Your task to perform on an android device: Show me productivity apps on the Play Store Image 0: 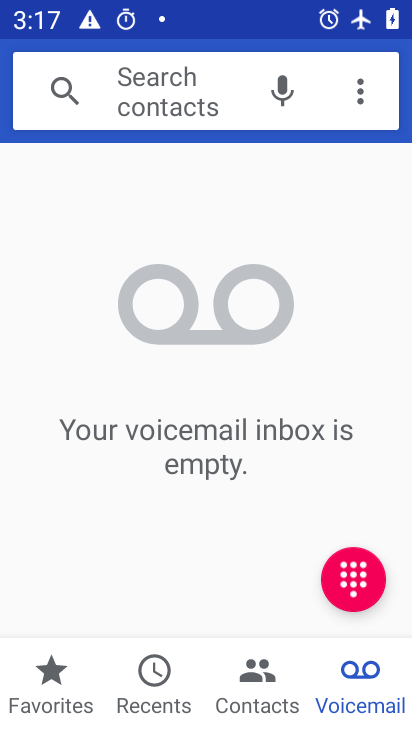
Step 0: press home button
Your task to perform on an android device: Show me productivity apps on the Play Store Image 1: 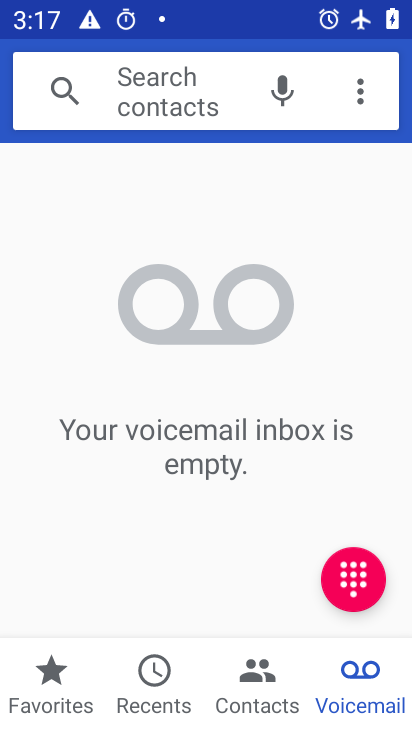
Step 1: press home button
Your task to perform on an android device: Show me productivity apps on the Play Store Image 2: 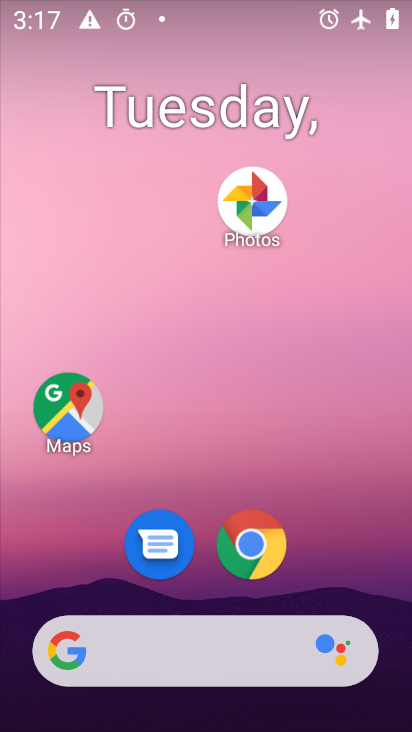
Step 2: drag from (311, 416) to (280, 97)
Your task to perform on an android device: Show me productivity apps on the Play Store Image 3: 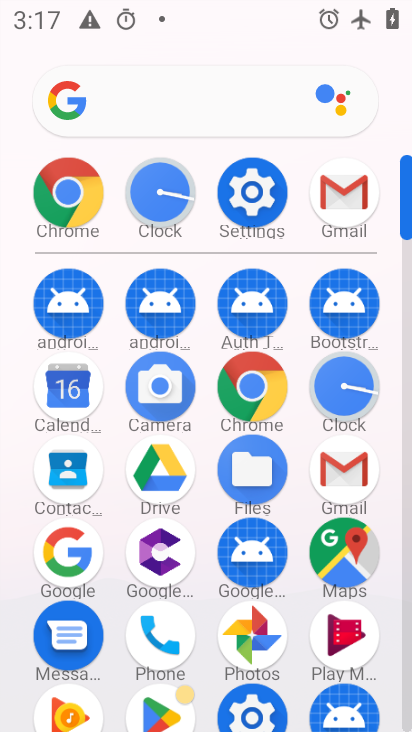
Step 3: drag from (196, 591) to (199, 144)
Your task to perform on an android device: Show me productivity apps on the Play Store Image 4: 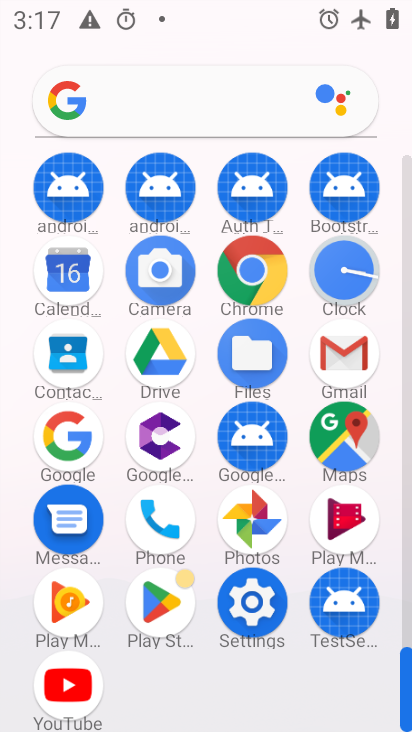
Step 4: click (162, 607)
Your task to perform on an android device: Show me productivity apps on the Play Store Image 5: 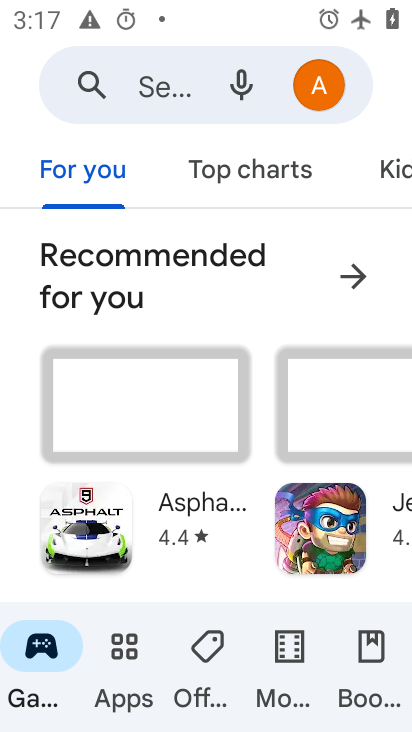
Step 5: click (96, 643)
Your task to perform on an android device: Show me productivity apps on the Play Store Image 6: 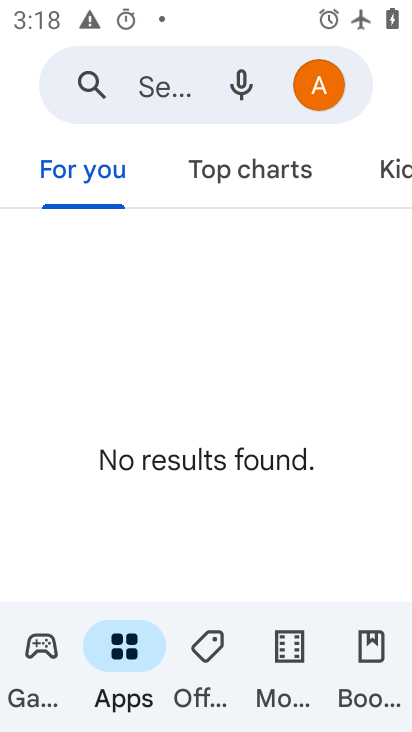
Step 6: task complete